Your task to perform on an android device: check out phone information Image 0: 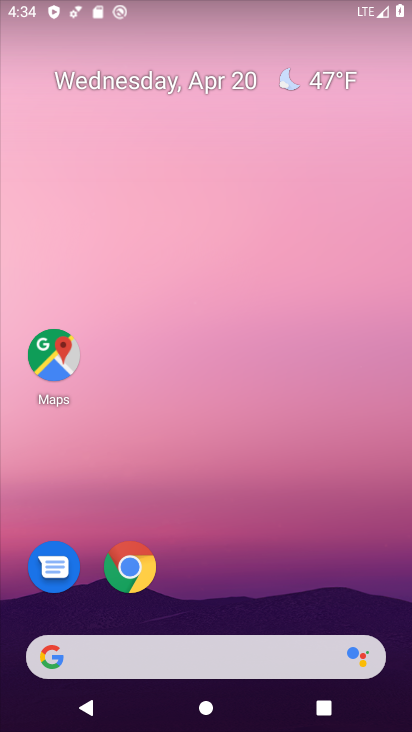
Step 0: drag from (254, 568) to (188, 57)
Your task to perform on an android device: check out phone information Image 1: 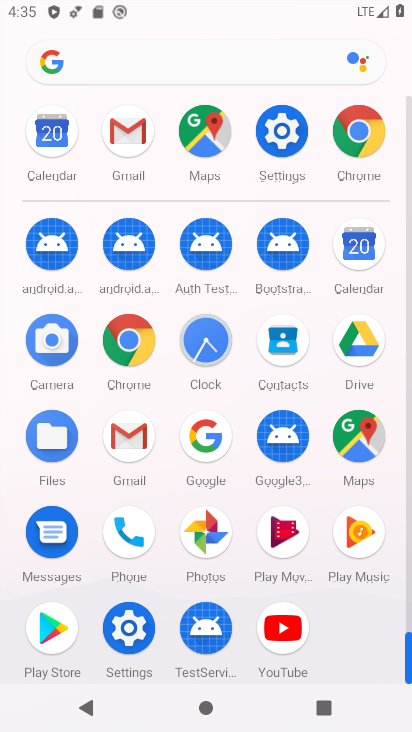
Step 1: drag from (9, 437) to (6, 215)
Your task to perform on an android device: check out phone information Image 2: 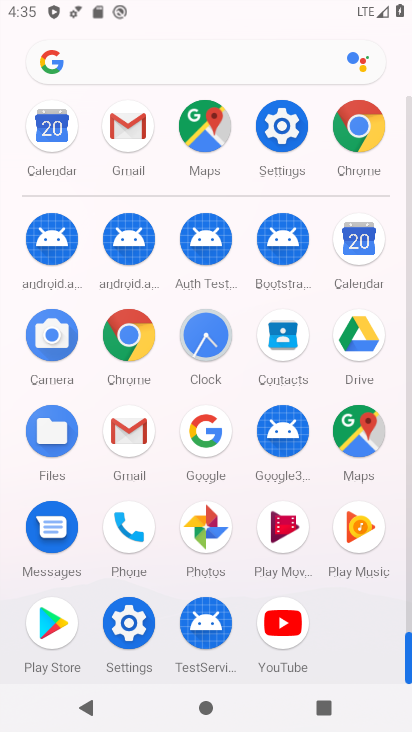
Step 2: click (128, 616)
Your task to perform on an android device: check out phone information Image 3: 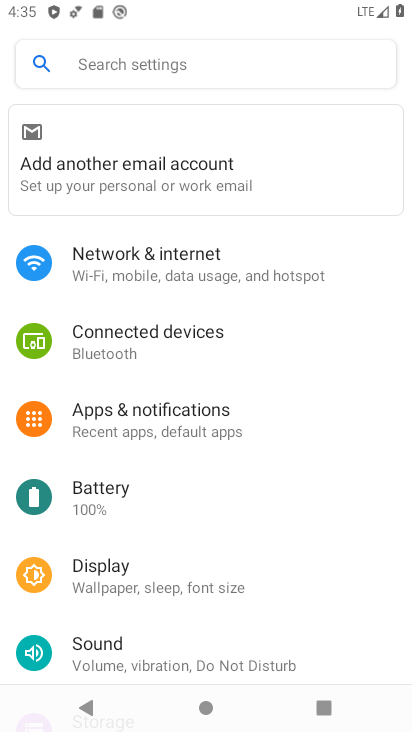
Step 3: drag from (233, 618) to (261, 169)
Your task to perform on an android device: check out phone information Image 4: 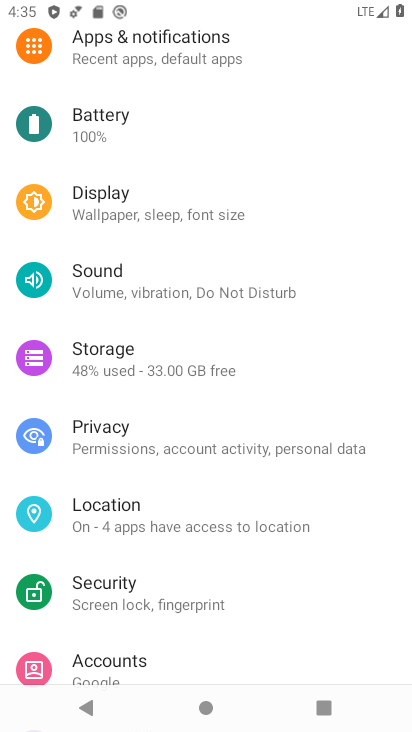
Step 4: drag from (255, 493) to (250, 101)
Your task to perform on an android device: check out phone information Image 5: 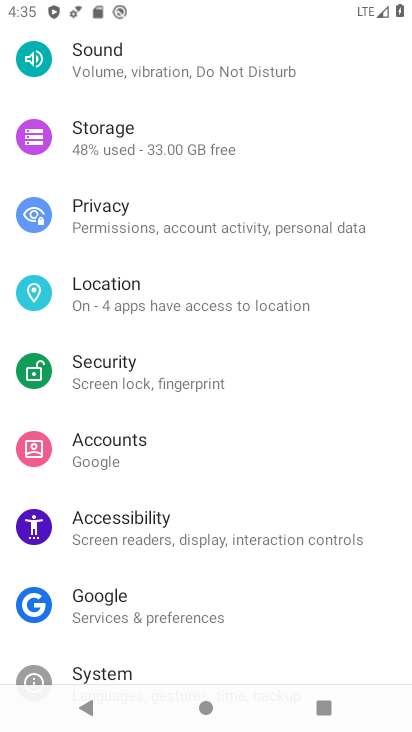
Step 5: drag from (242, 568) to (262, 93)
Your task to perform on an android device: check out phone information Image 6: 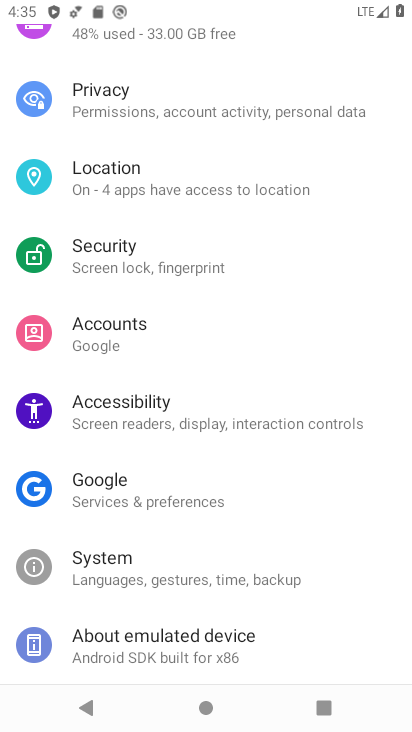
Step 6: click (201, 654)
Your task to perform on an android device: check out phone information Image 7: 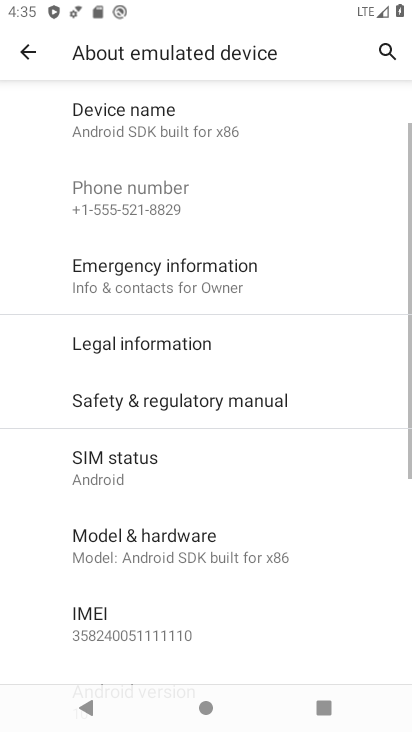
Step 7: task complete